Your task to perform on an android device: check out phone information Image 0: 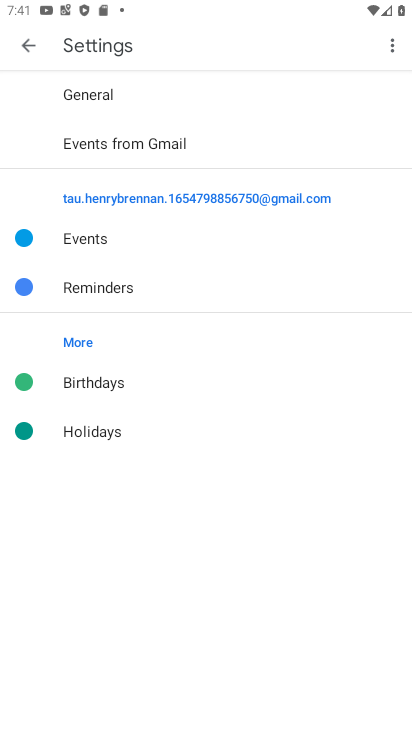
Step 0: press home button
Your task to perform on an android device: check out phone information Image 1: 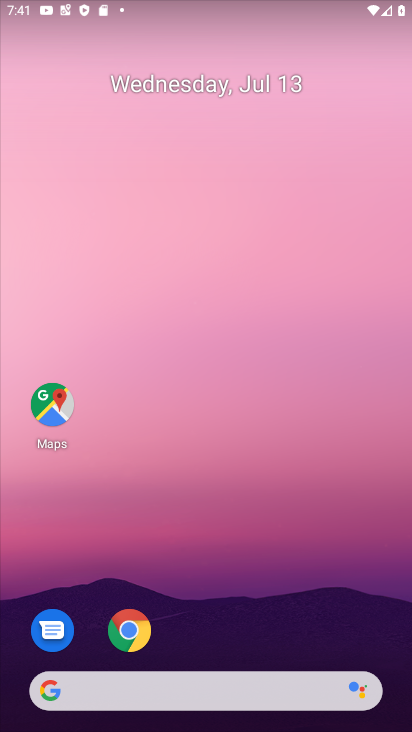
Step 1: drag from (278, 641) to (298, 112)
Your task to perform on an android device: check out phone information Image 2: 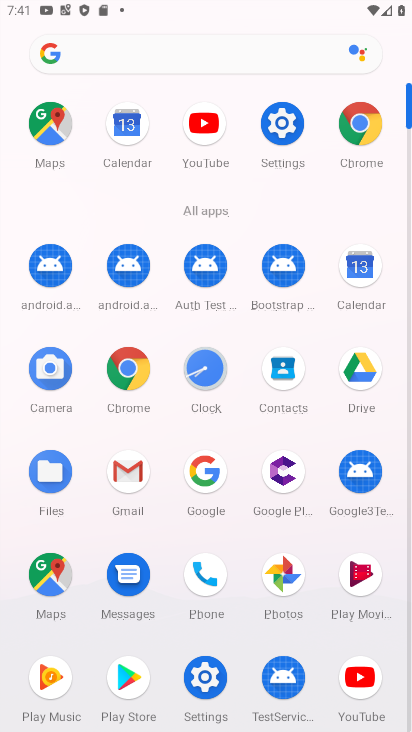
Step 2: click (204, 581)
Your task to perform on an android device: check out phone information Image 3: 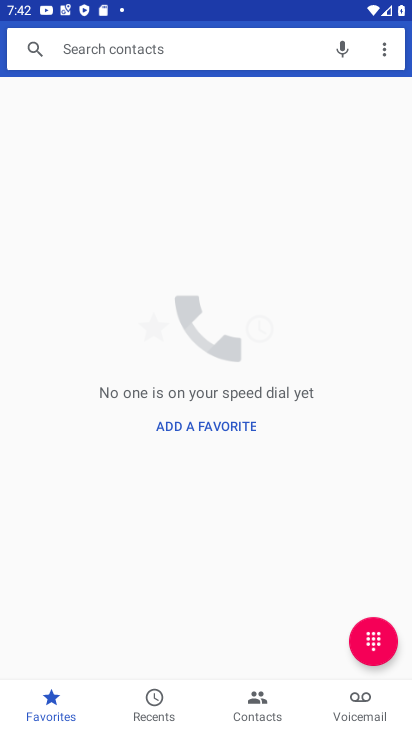
Step 3: task complete